Your task to perform on an android device: find which apps use the phone's location Image 0: 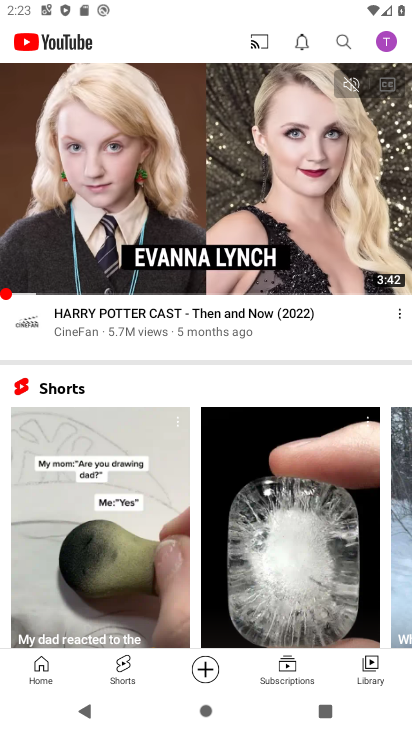
Step 0: press back button
Your task to perform on an android device: find which apps use the phone's location Image 1: 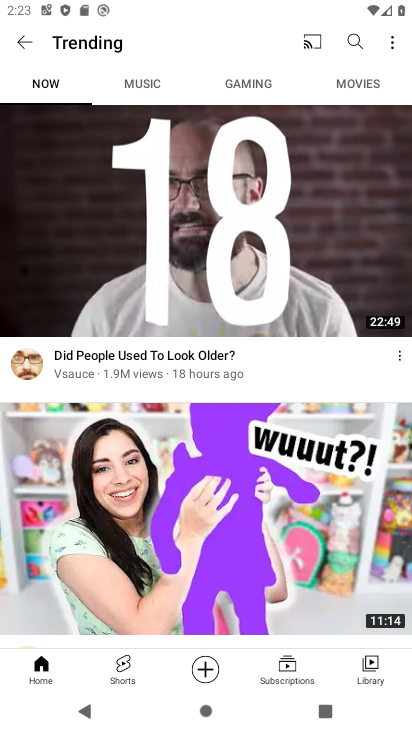
Step 1: press back button
Your task to perform on an android device: find which apps use the phone's location Image 2: 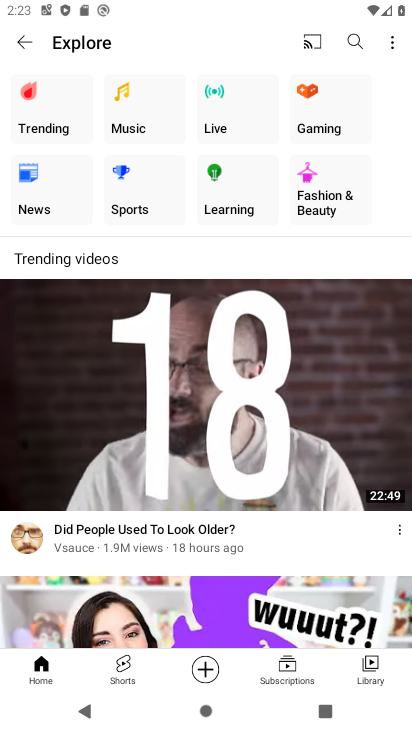
Step 2: press back button
Your task to perform on an android device: find which apps use the phone's location Image 3: 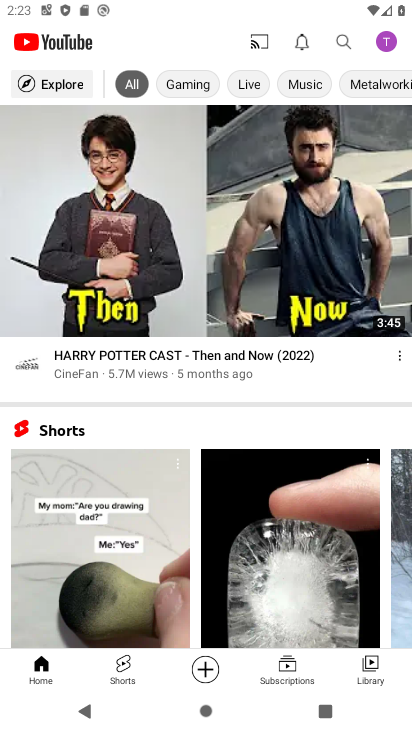
Step 3: press back button
Your task to perform on an android device: find which apps use the phone's location Image 4: 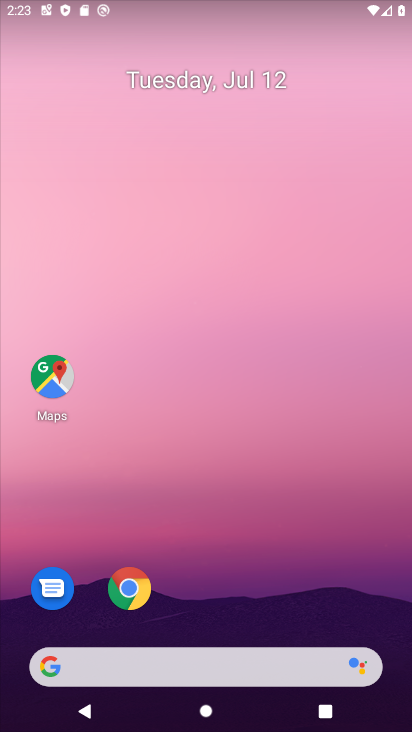
Step 4: drag from (210, 667) to (192, 70)
Your task to perform on an android device: find which apps use the phone's location Image 5: 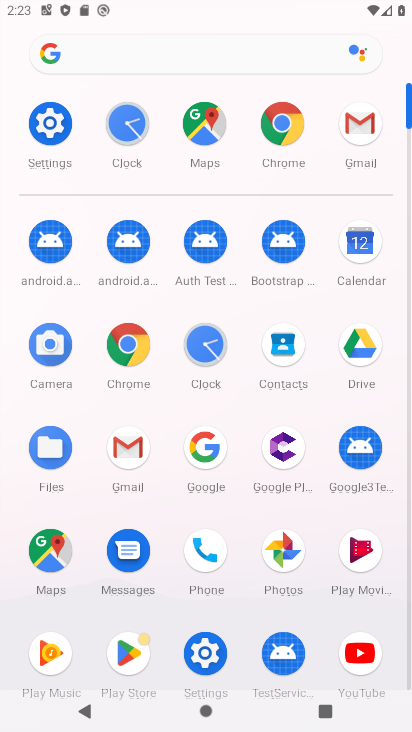
Step 5: click (54, 117)
Your task to perform on an android device: find which apps use the phone's location Image 6: 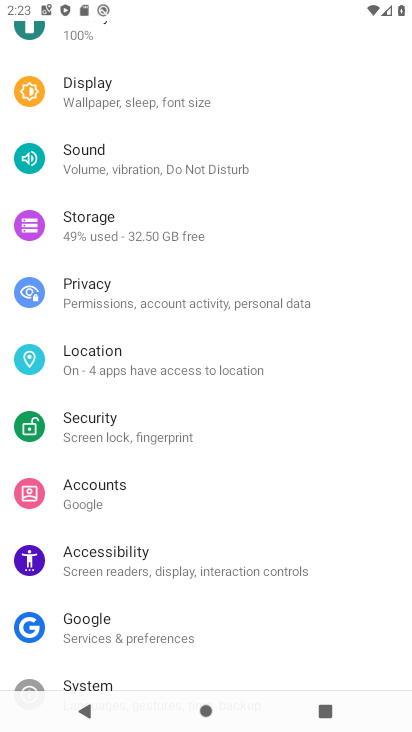
Step 6: click (132, 359)
Your task to perform on an android device: find which apps use the phone's location Image 7: 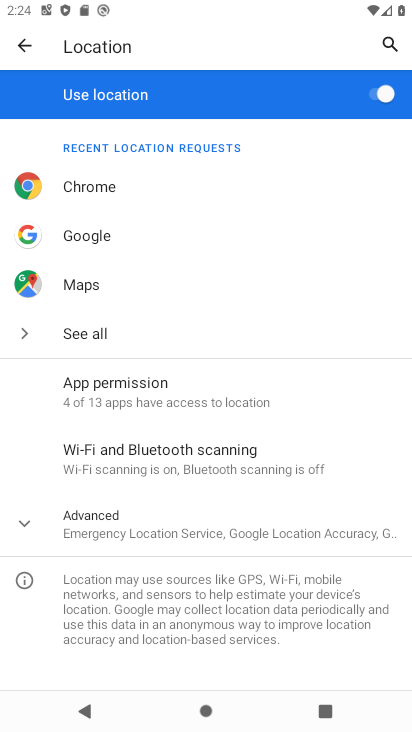
Step 7: click (121, 391)
Your task to perform on an android device: find which apps use the phone's location Image 8: 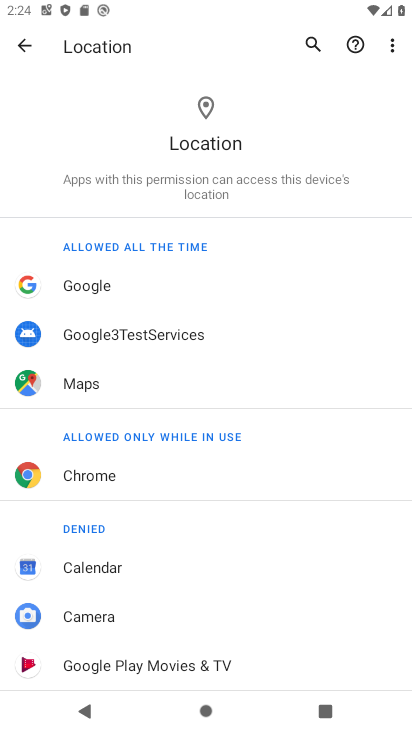
Step 8: task complete